Your task to perform on an android device: Go to Yahoo.com Image 0: 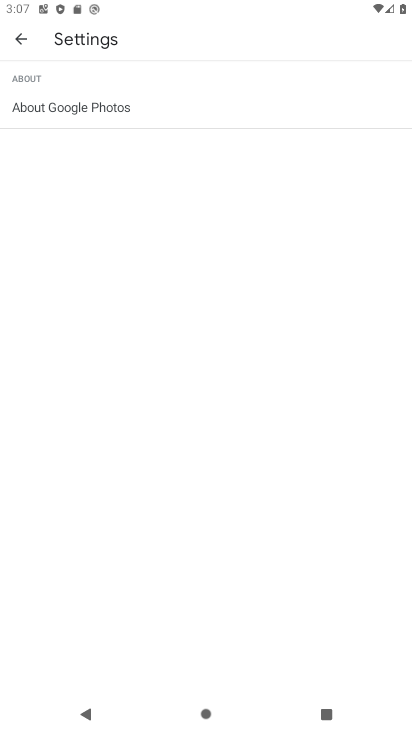
Step 0: press back button
Your task to perform on an android device: Go to Yahoo.com Image 1: 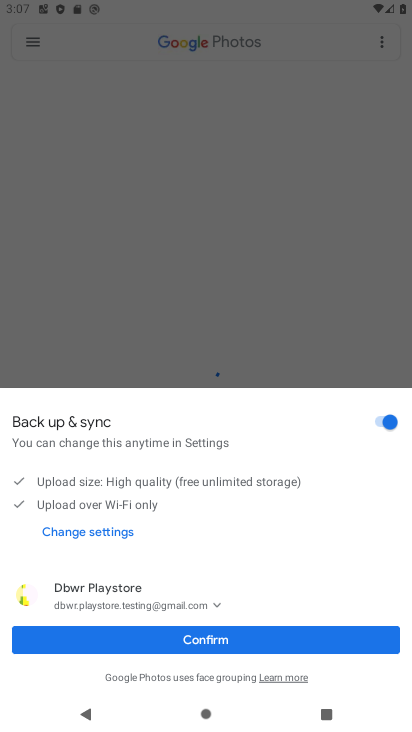
Step 1: press home button
Your task to perform on an android device: Go to Yahoo.com Image 2: 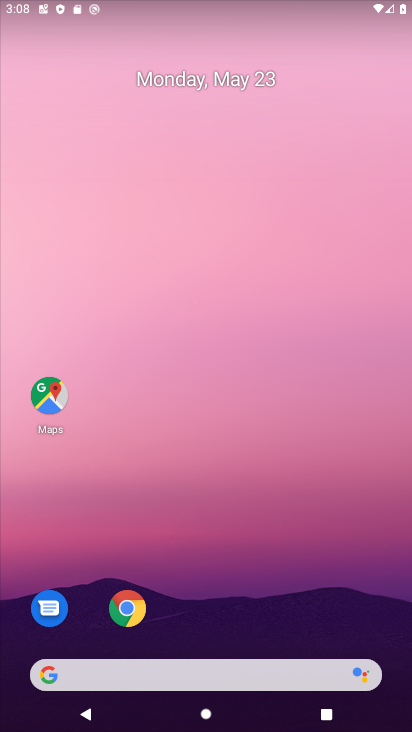
Step 2: click (127, 608)
Your task to perform on an android device: Go to Yahoo.com Image 3: 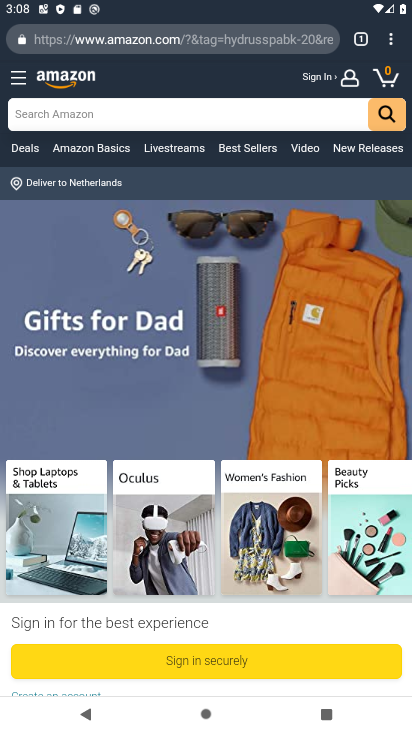
Step 3: click (255, 36)
Your task to perform on an android device: Go to Yahoo.com Image 4: 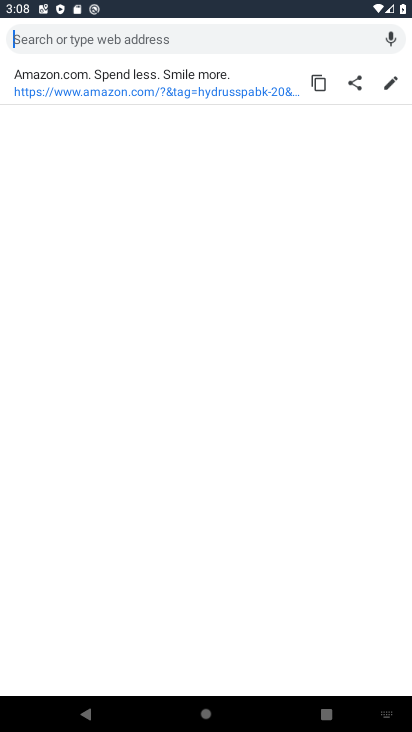
Step 4: type "Yahoo.com"
Your task to perform on an android device: Go to Yahoo.com Image 5: 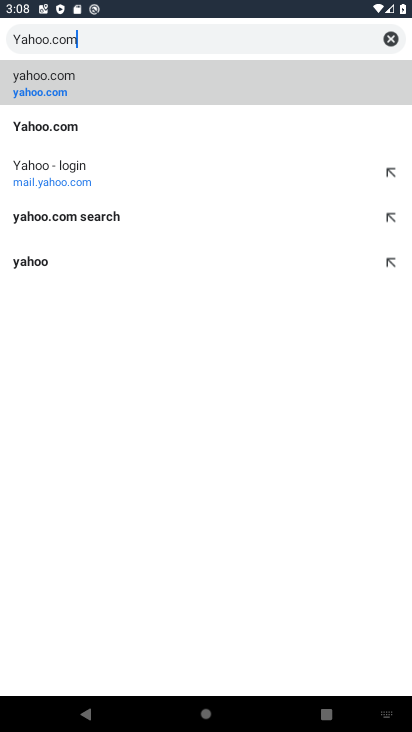
Step 5: type ""
Your task to perform on an android device: Go to Yahoo.com Image 6: 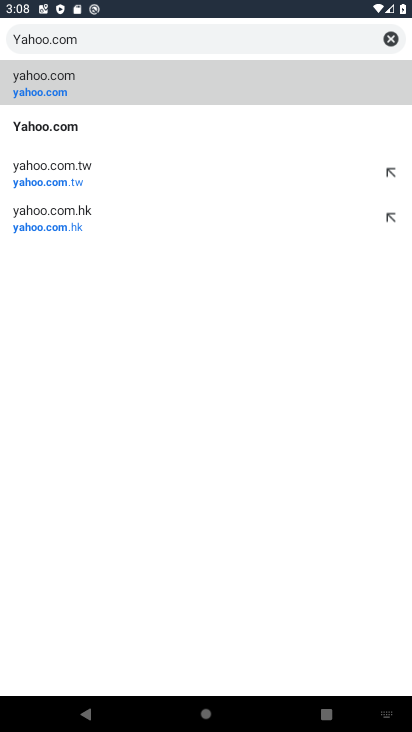
Step 6: click (71, 127)
Your task to perform on an android device: Go to Yahoo.com Image 7: 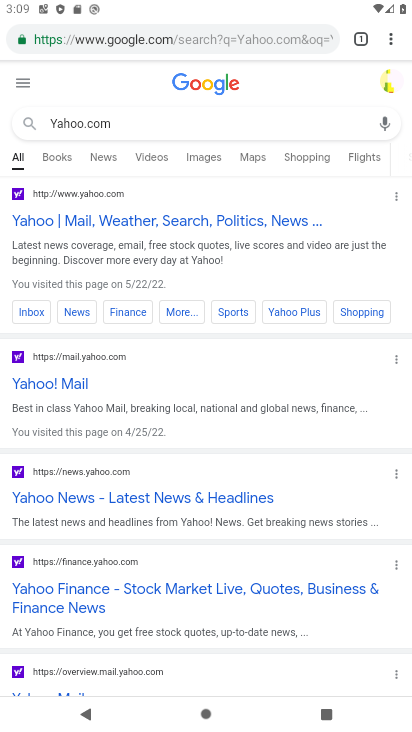
Step 7: click (112, 211)
Your task to perform on an android device: Go to Yahoo.com Image 8: 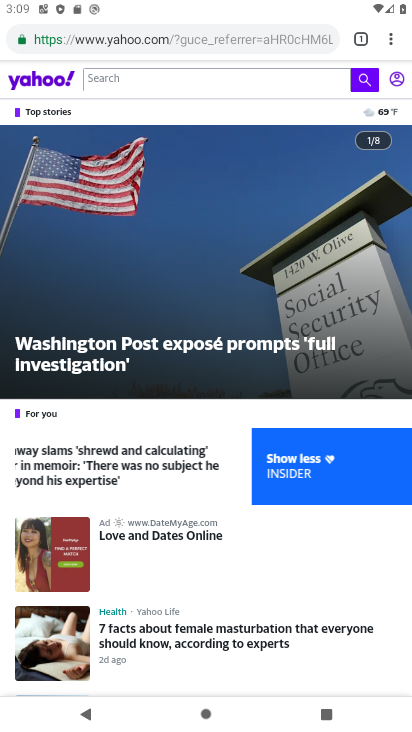
Step 8: task complete